Your task to perform on an android device: turn on bluetooth scan Image 0: 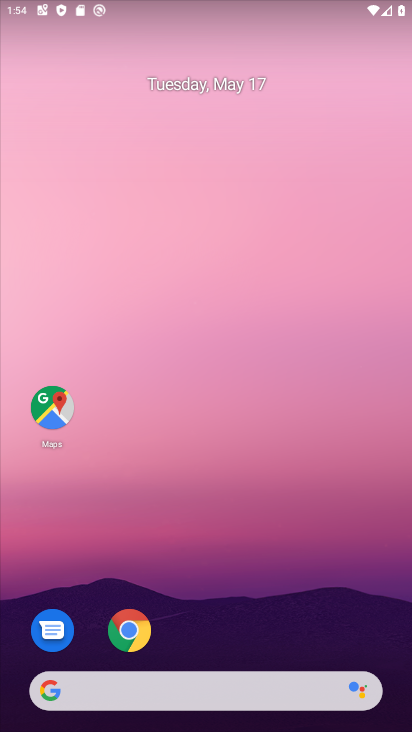
Step 0: drag from (357, 634) to (329, 106)
Your task to perform on an android device: turn on bluetooth scan Image 1: 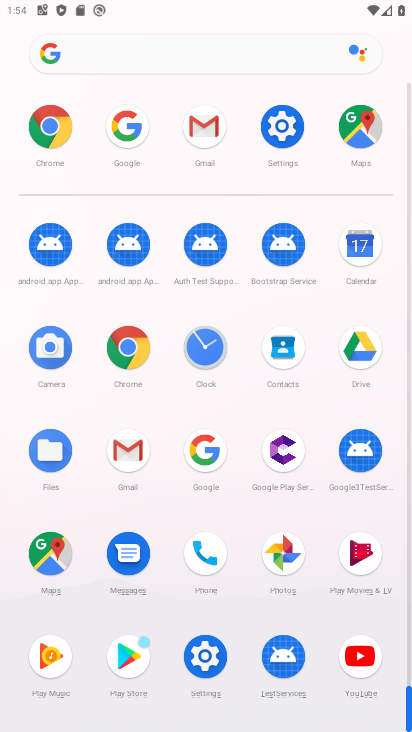
Step 1: click (295, 134)
Your task to perform on an android device: turn on bluetooth scan Image 2: 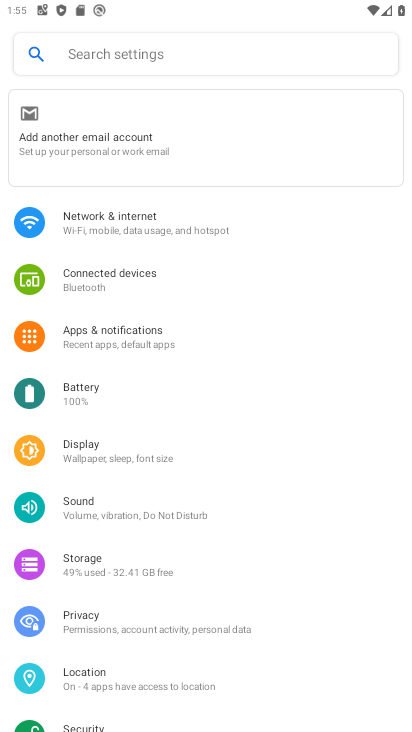
Step 2: drag from (204, 629) to (221, 325)
Your task to perform on an android device: turn on bluetooth scan Image 3: 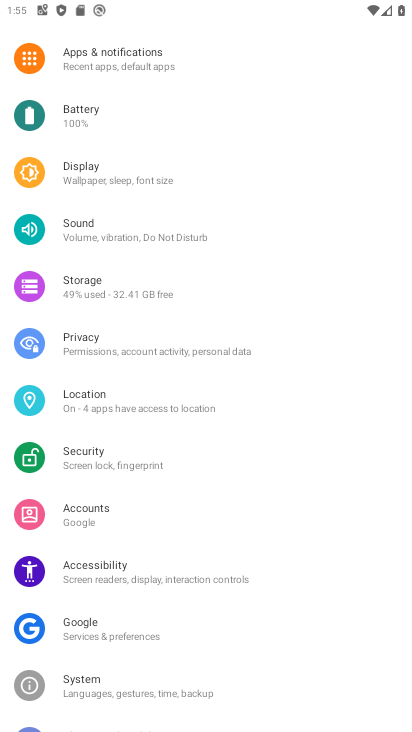
Step 3: click (146, 399)
Your task to perform on an android device: turn on bluetooth scan Image 4: 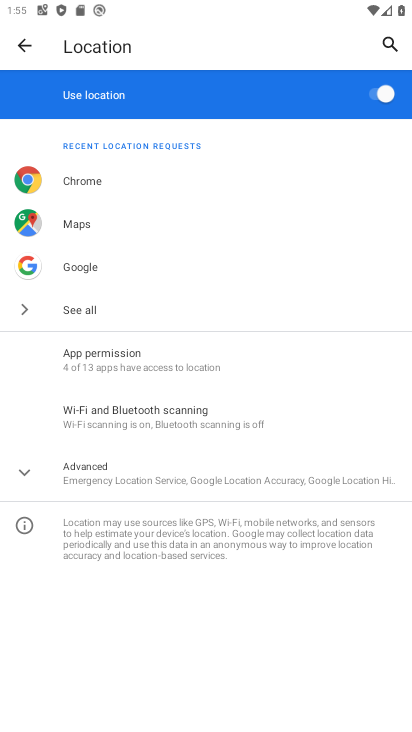
Step 4: click (231, 425)
Your task to perform on an android device: turn on bluetooth scan Image 5: 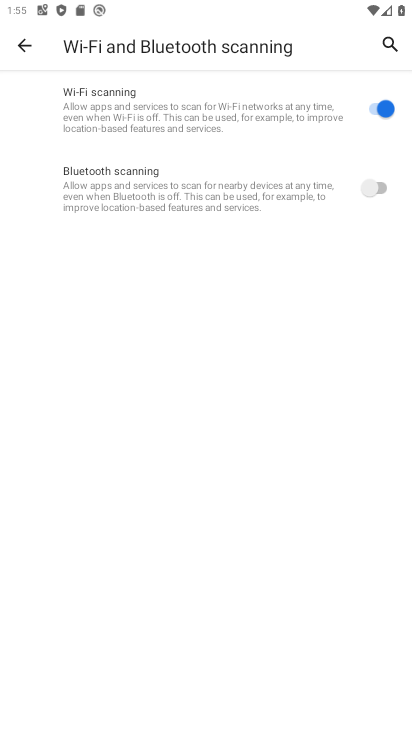
Step 5: click (384, 191)
Your task to perform on an android device: turn on bluetooth scan Image 6: 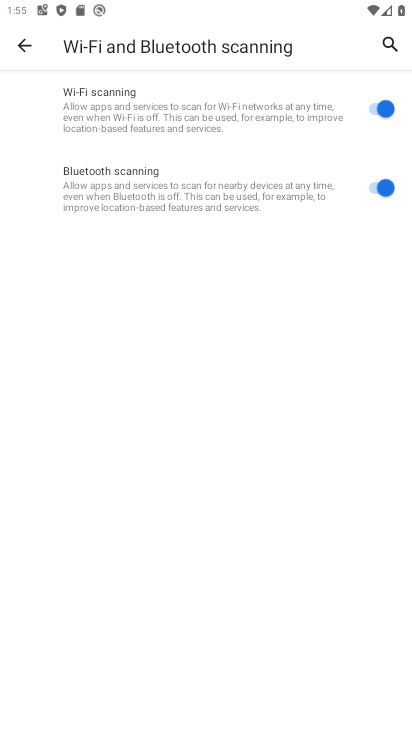
Step 6: task complete